Your task to perform on an android device: Search for sushi restaurants on Maps Image 0: 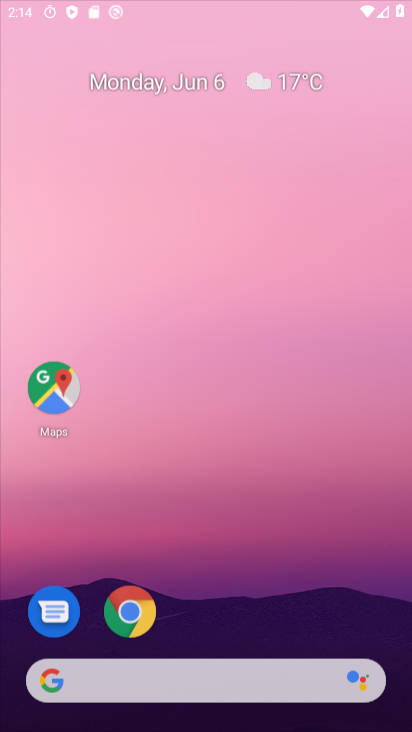
Step 0: click (216, 171)
Your task to perform on an android device: Search for sushi restaurants on Maps Image 1: 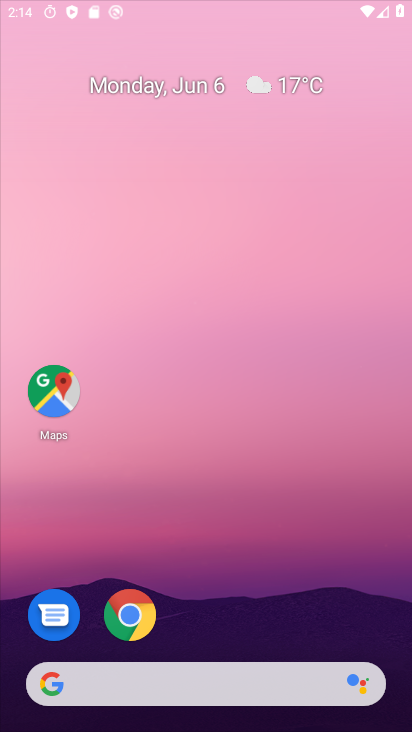
Step 1: drag from (212, 604) to (244, 152)
Your task to perform on an android device: Search for sushi restaurants on Maps Image 2: 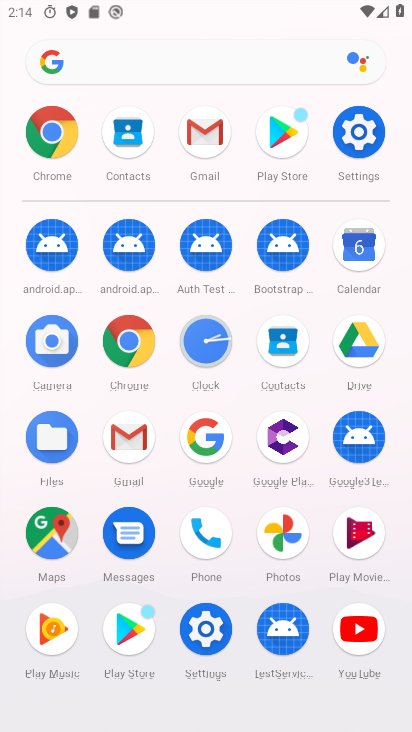
Step 2: click (37, 533)
Your task to perform on an android device: Search for sushi restaurants on Maps Image 3: 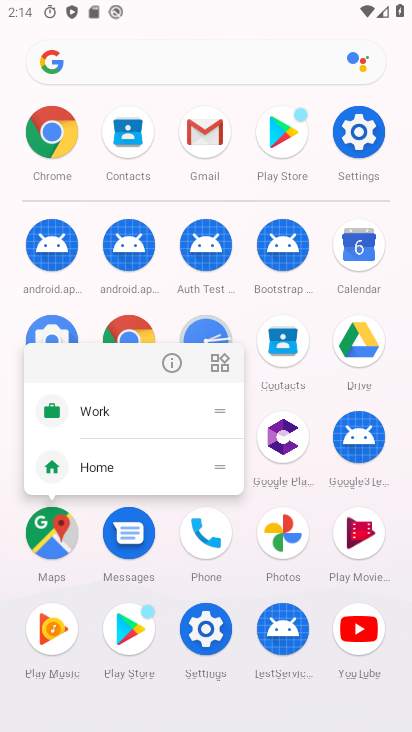
Step 3: click (167, 371)
Your task to perform on an android device: Search for sushi restaurants on Maps Image 4: 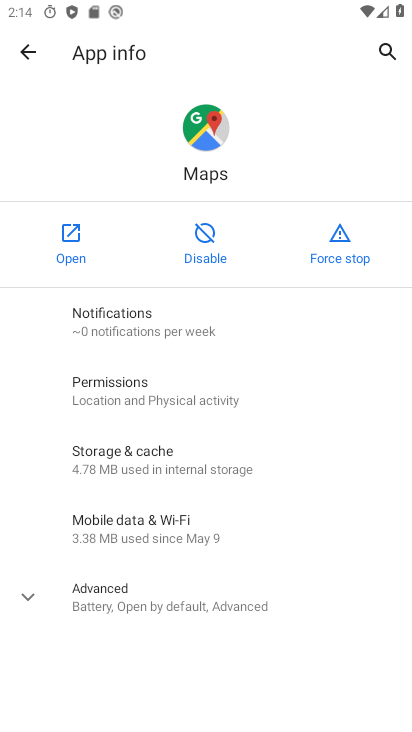
Step 4: click (66, 213)
Your task to perform on an android device: Search for sushi restaurants on Maps Image 5: 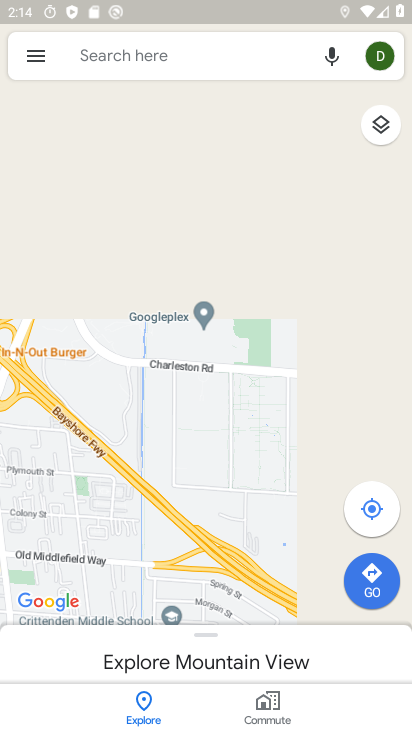
Step 5: click (116, 50)
Your task to perform on an android device: Search for sushi restaurants on Maps Image 6: 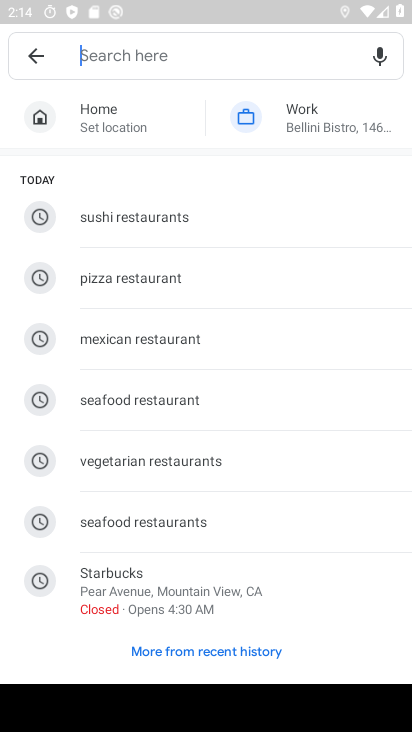
Step 6: click (114, 229)
Your task to perform on an android device: Search for sushi restaurants on Maps Image 7: 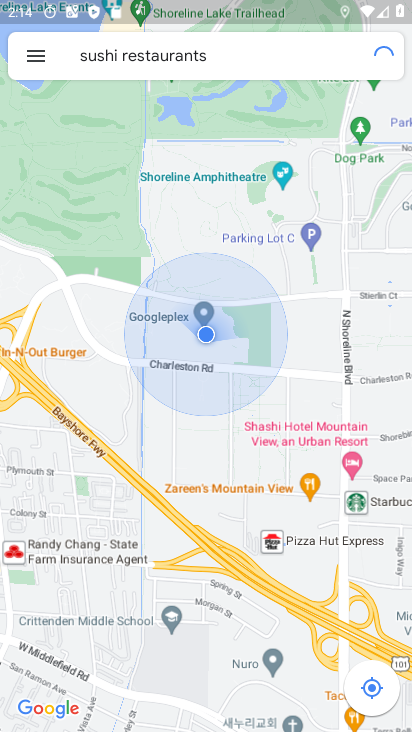
Step 7: task complete